Your task to perform on an android device: Search for sushi restaurants on Maps Image 0: 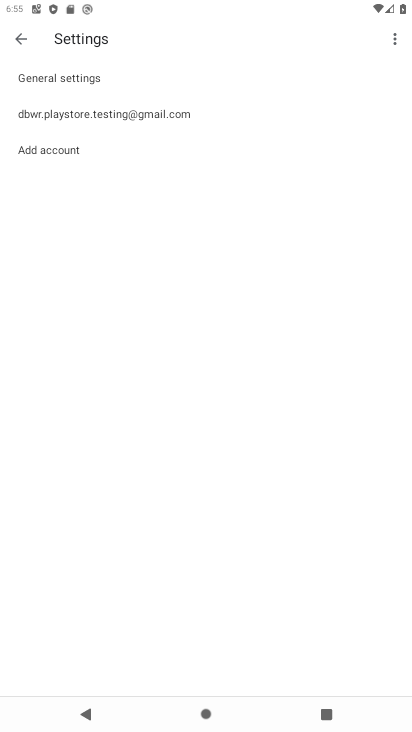
Step 0: drag from (251, 672) to (292, 531)
Your task to perform on an android device: Search for sushi restaurants on Maps Image 1: 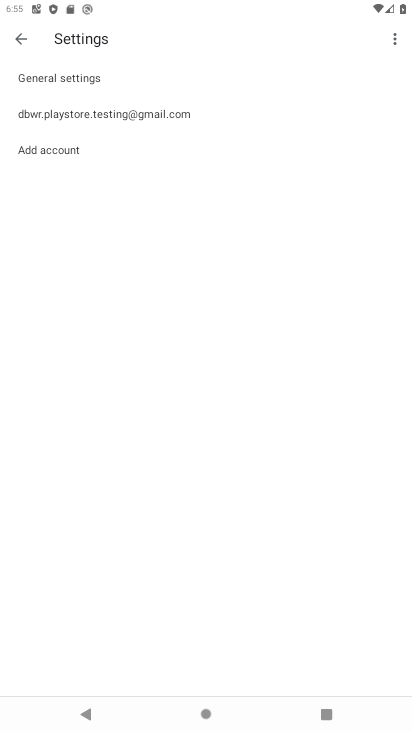
Step 1: press home button
Your task to perform on an android device: Search for sushi restaurants on Maps Image 2: 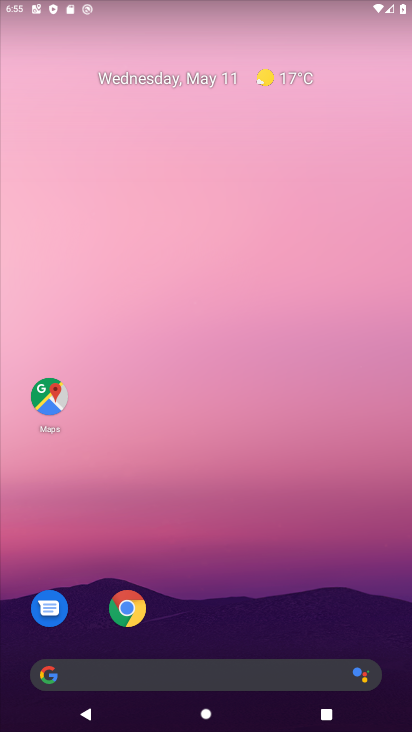
Step 2: click (47, 412)
Your task to perform on an android device: Search for sushi restaurants on Maps Image 3: 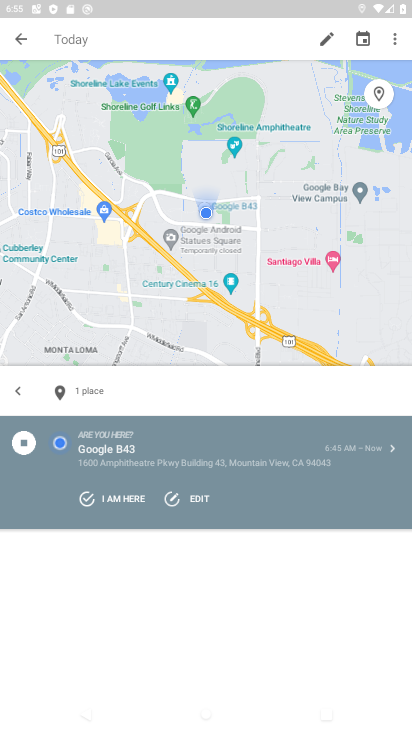
Step 3: click (27, 39)
Your task to perform on an android device: Search for sushi restaurants on Maps Image 4: 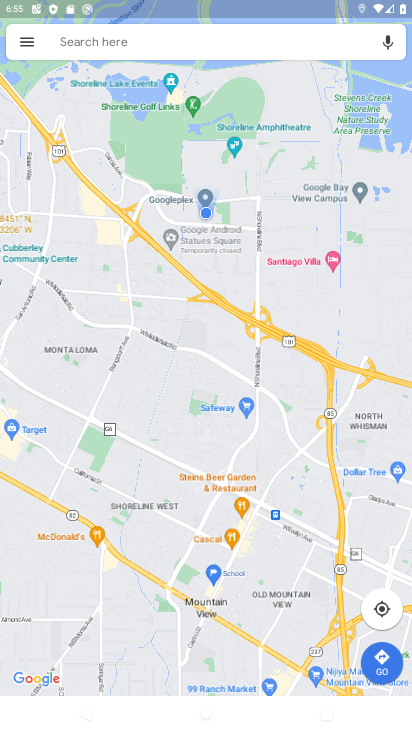
Step 4: click (219, 36)
Your task to perform on an android device: Search for sushi restaurants on Maps Image 5: 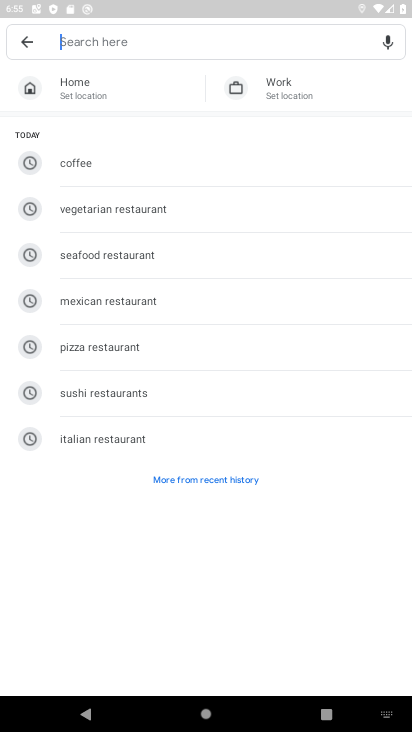
Step 5: click (147, 385)
Your task to perform on an android device: Search for sushi restaurants on Maps Image 6: 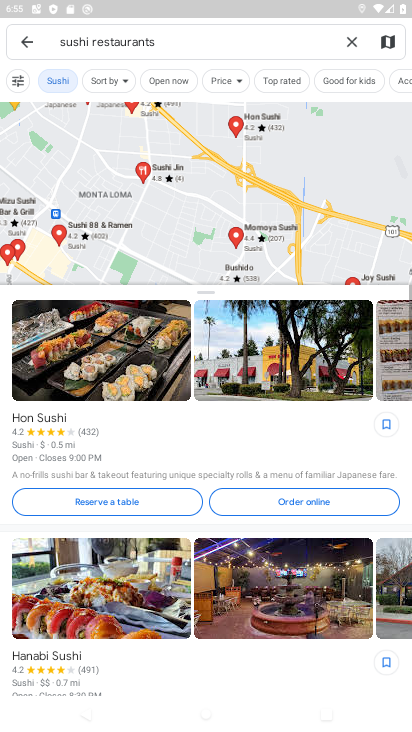
Step 6: task complete